Your task to perform on an android device: Play the last video I watched on Youtube Image 0: 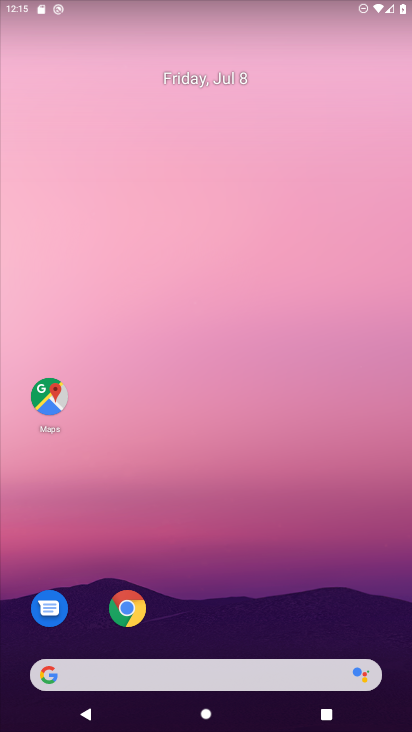
Step 0: drag from (223, 727) to (209, 563)
Your task to perform on an android device: Play the last video I watched on Youtube Image 1: 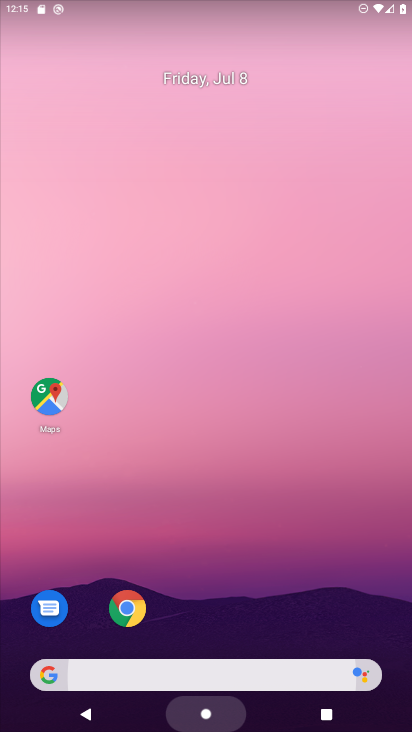
Step 1: drag from (200, 288) to (196, 85)
Your task to perform on an android device: Play the last video I watched on Youtube Image 2: 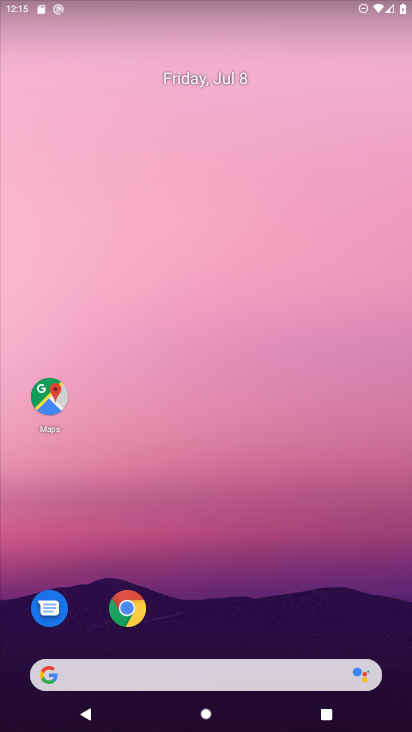
Step 2: drag from (245, 711) to (232, 579)
Your task to perform on an android device: Play the last video I watched on Youtube Image 3: 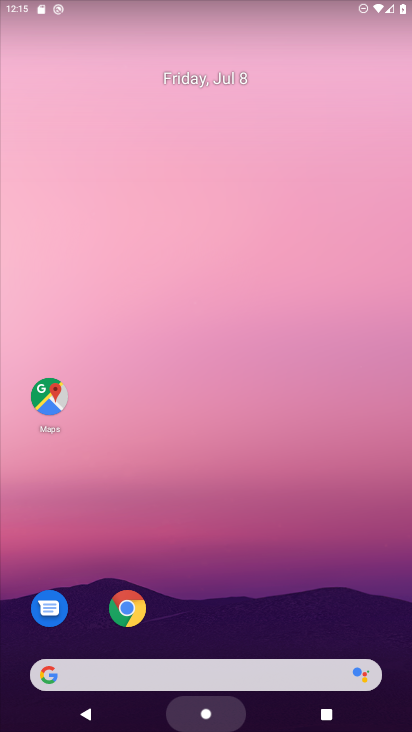
Step 3: drag from (229, 317) to (227, 37)
Your task to perform on an android device: Play the last video I watched on Youtube Image 4: 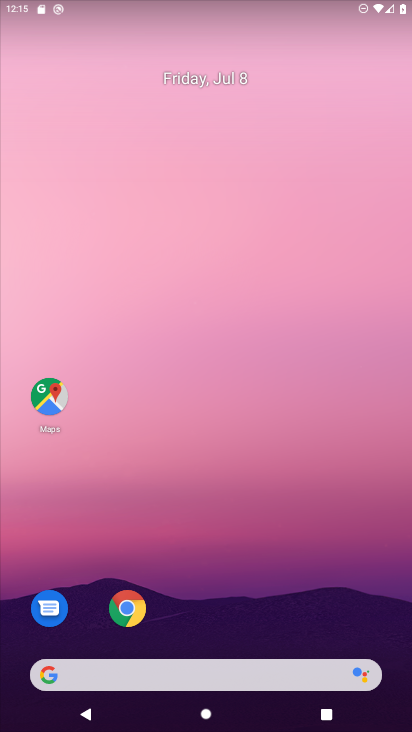
Step 4: drag from (266, 723) to (249, 39)
Your task to perform on an android device: Play the last video I watched on Youtube Image 5: 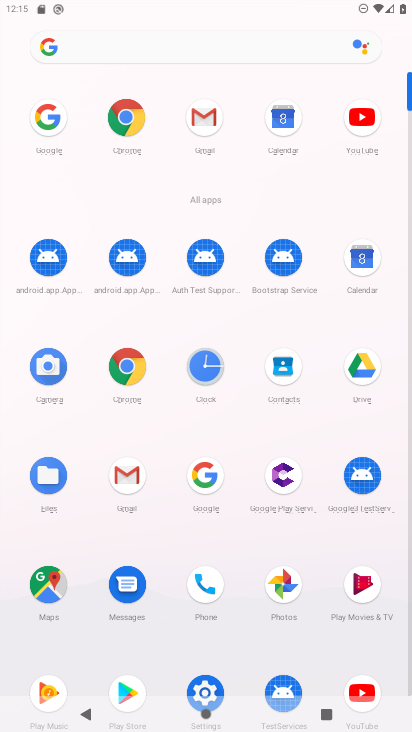
Step 5: click (360, 124)
Your task to perform on an android device: Play the last video I watched on Youtube Image 6: 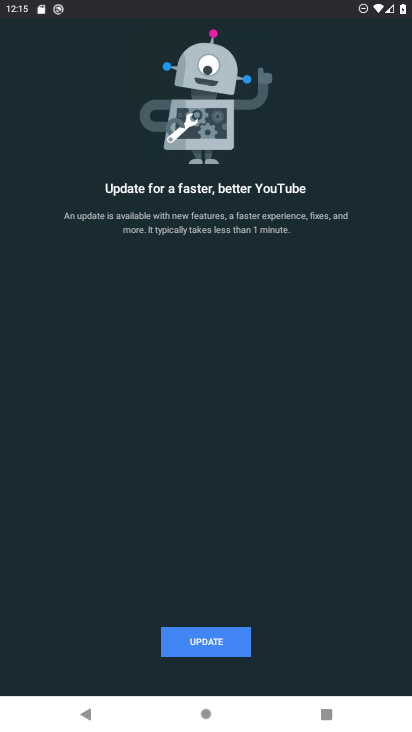
Step 6: task complete